Your task to perform on an android device: Show me popular videos on Youtube Image 0: 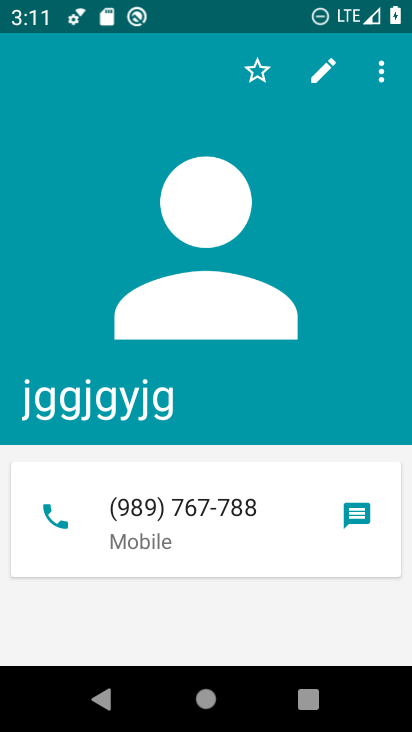
Step 0: press home button
Your task to perform on an android device: Show me popular videos on Youtube Image 1: 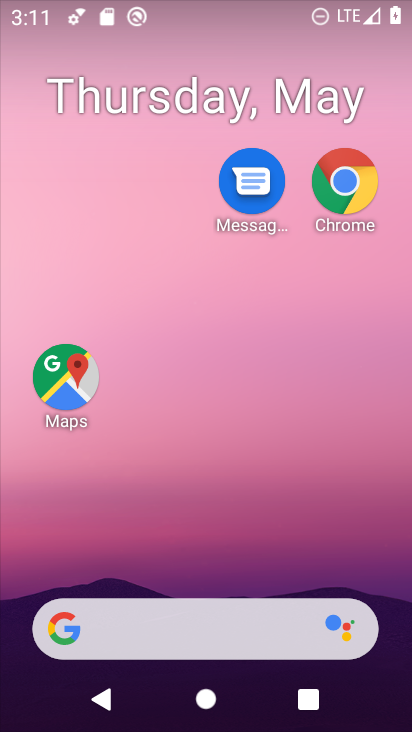
Step 1: drag from (264, 635) to (278, 69)
Your task to perform on an android device: Show me popular videos on Youtube Image 2: 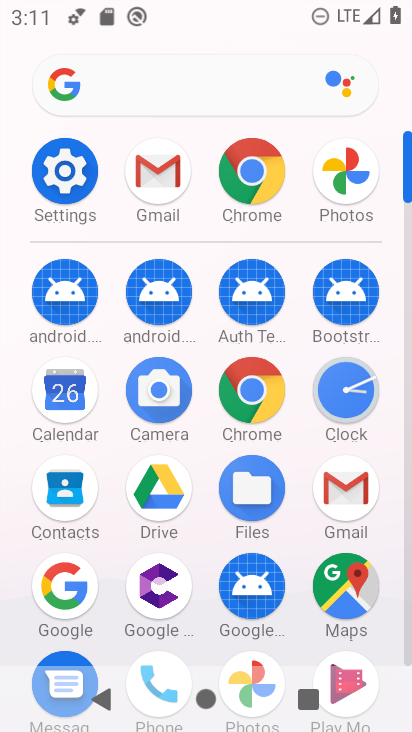
Step 2: drag from (293, 628) to (318, 228)
Your task to perform on an android device: Show me popular videos on Youtube Image 3: 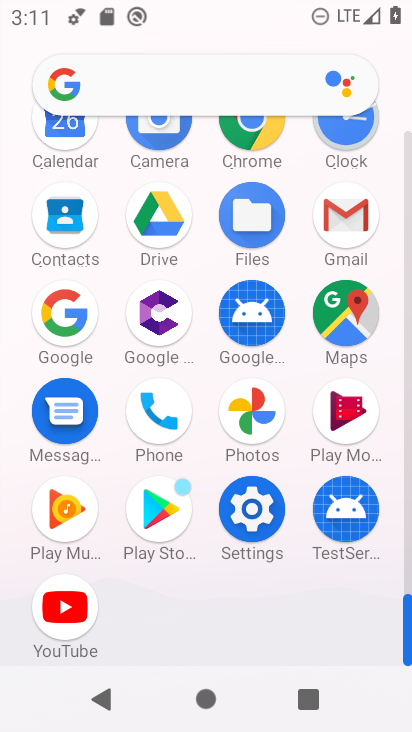
Step 3: click (57, 615)
Your task to perform on an android device: Show me popular videos on Youtube Image 4: 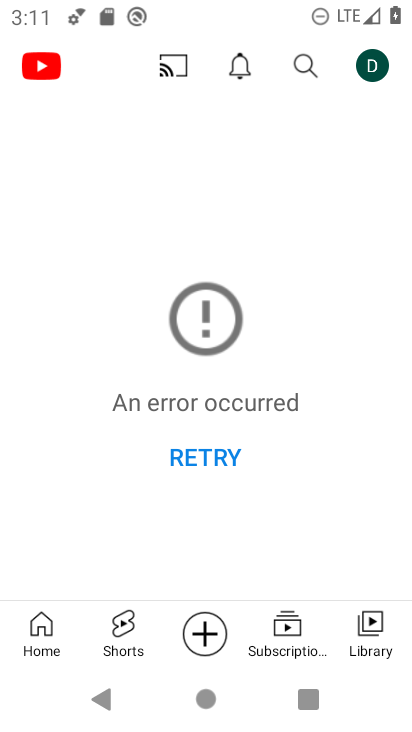
Step 4: click (374, 622)
Your task to perform on an android device: Show me popular videos on Youtube Image 5: 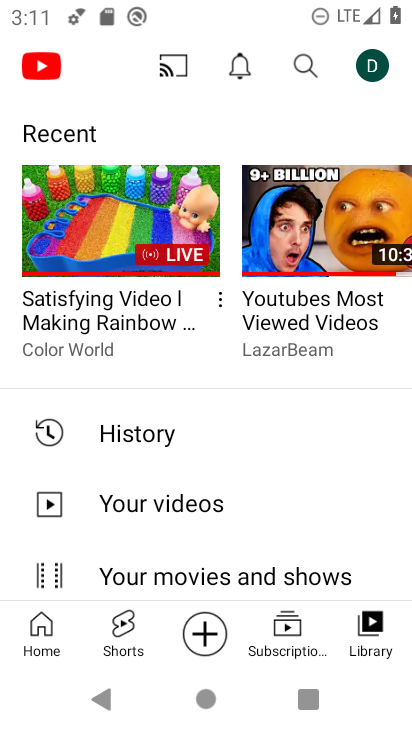
Step 5: click (141, 241)
Your task to perform on an android device: Show me popular videos on Youtube Image 6: 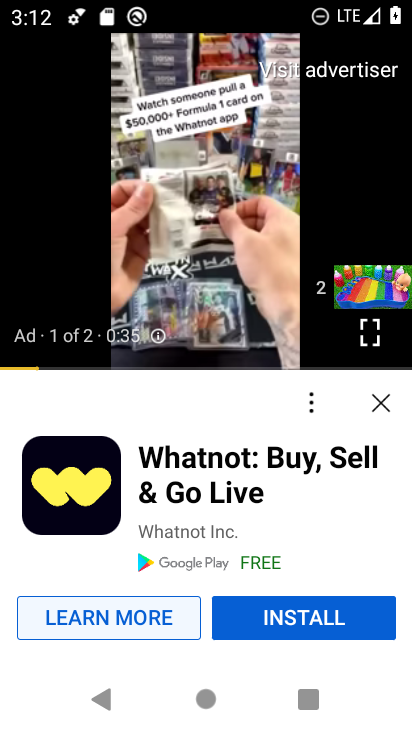
Step 6: click (388, 402)
Your task to perform on an android device: Show me popular videos on Youtube Image 7: 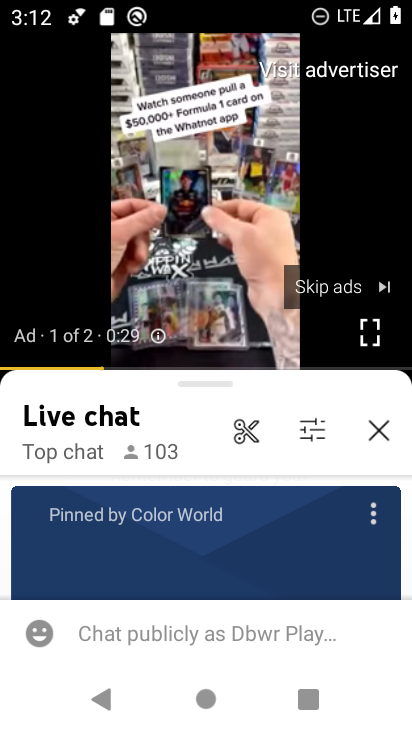
Step 7: task complete